Your task to perform on an android device: Open the settings Image 0: 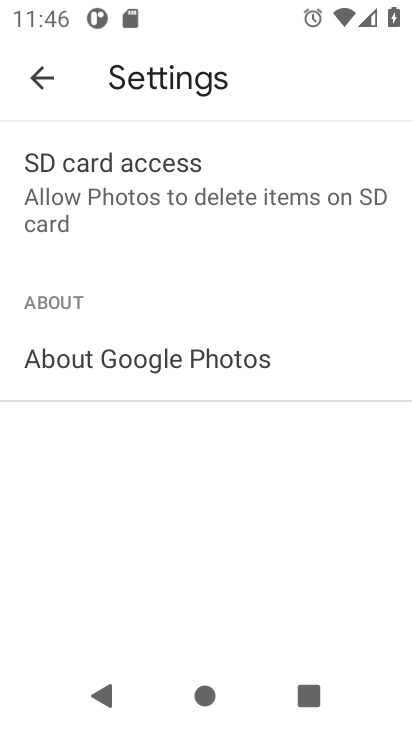
Step 0: press home button
Your task to perform on an android device: Open the settings Image 1: 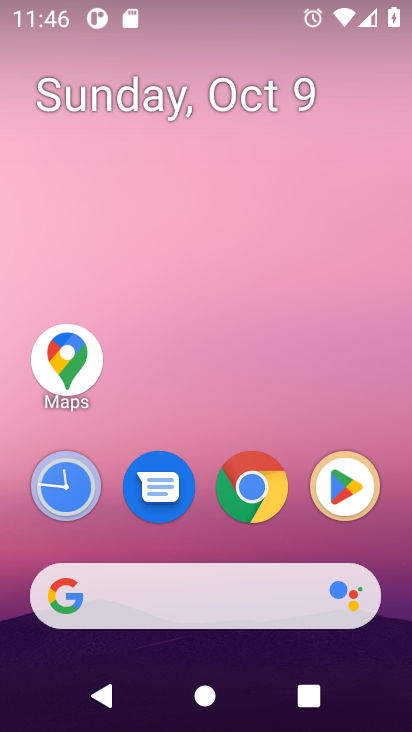
Step 1: drag from (209, 559) to (178, 29)
Your task to perform on an android device: Open the settings Image 2: 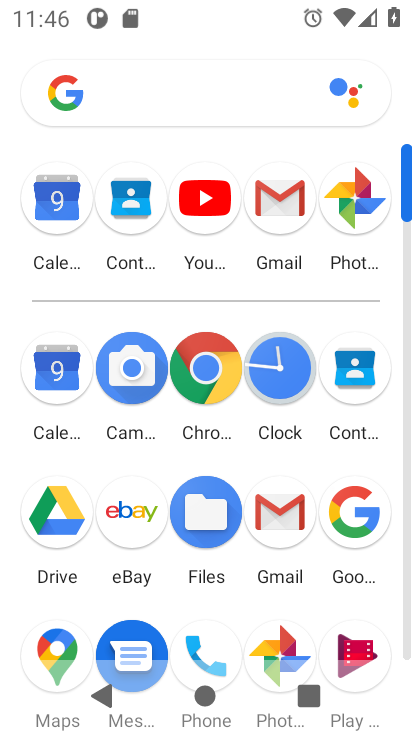
Step 2: drag from (248, 600) to (264, 260)
Your task to perform on an android device: Open the settings Image 3: 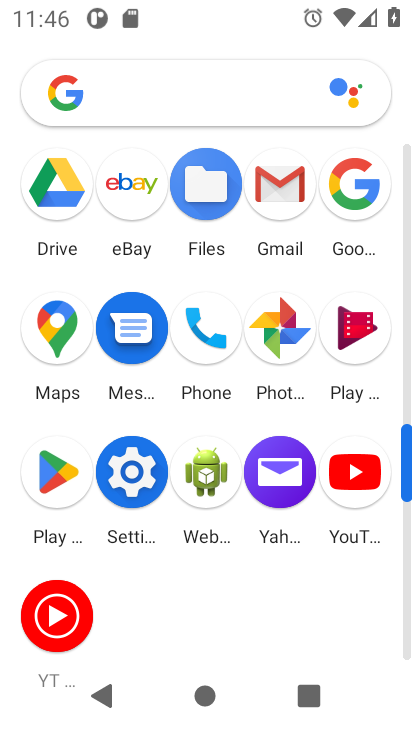
Step 3: click (119, 474)
Your task to perform on an android device: Open the settings Image 4: 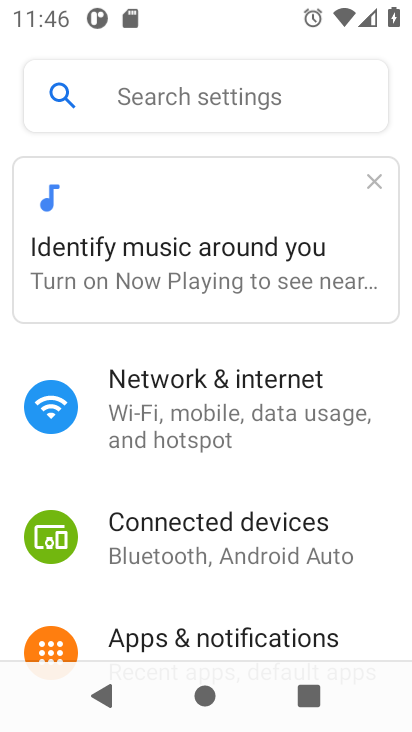
Step 4: task complete